Your task to perform on an android device: toggle show notifications on the lock screen Image 0: 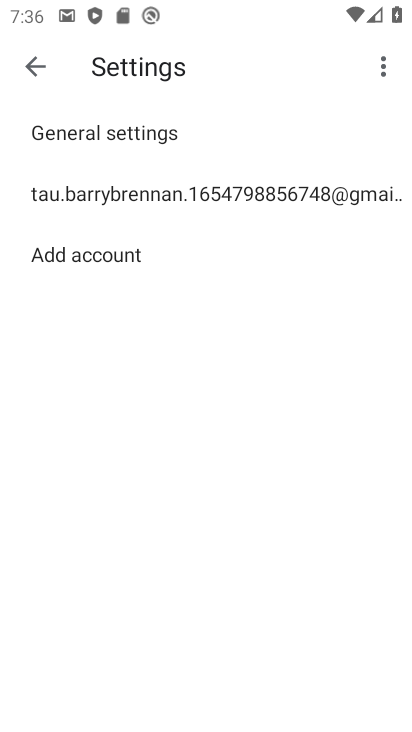
Step 0: press home button
Your task to perform on an android device: toggle show notifications on the lock screen Image 1: 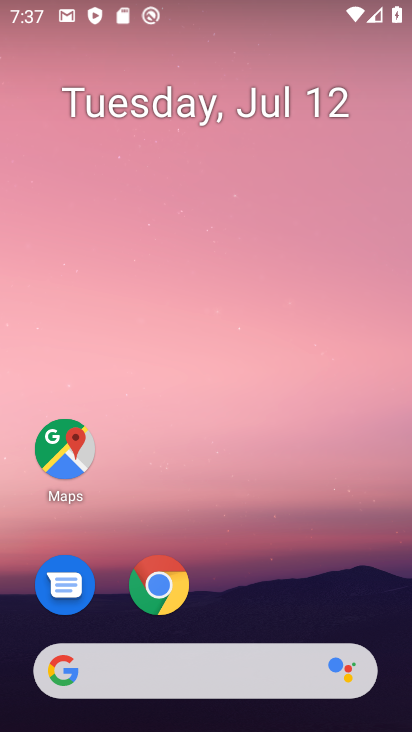
Step 1: drag from (240, 544) to (257, 5)
Your task to perform on an android device: toggle show notifications on the lock screen Image 2: 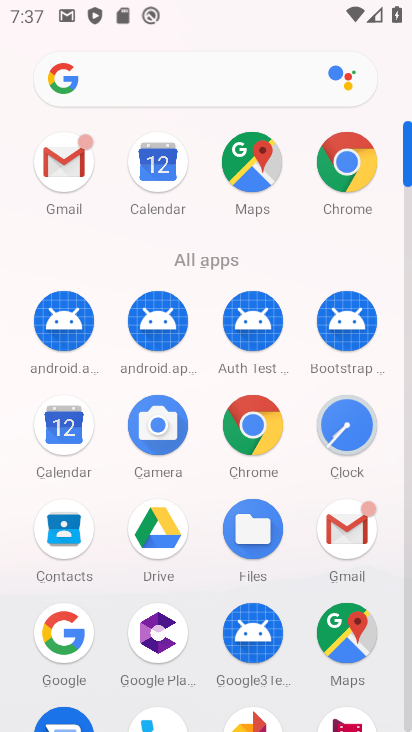
Step 2: drag from (218, 499) to (217, 87)
Your task to perform on an android device: toggle show notifications on the lock screen Image 3: 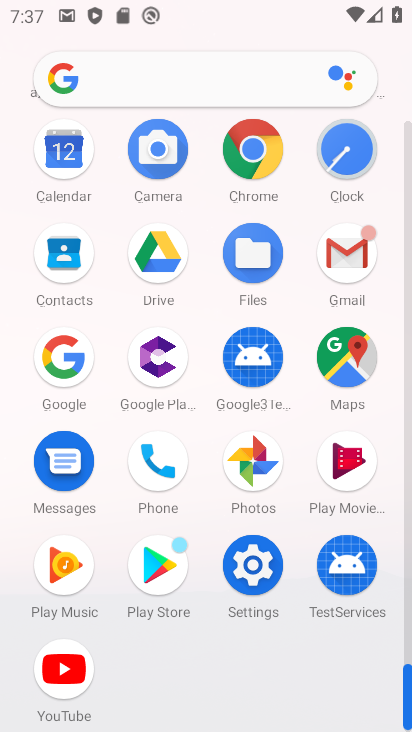
Step 3: click (246, 562)
Your task to perform on an android device: toggle show notifications on the lock screen Image 4: 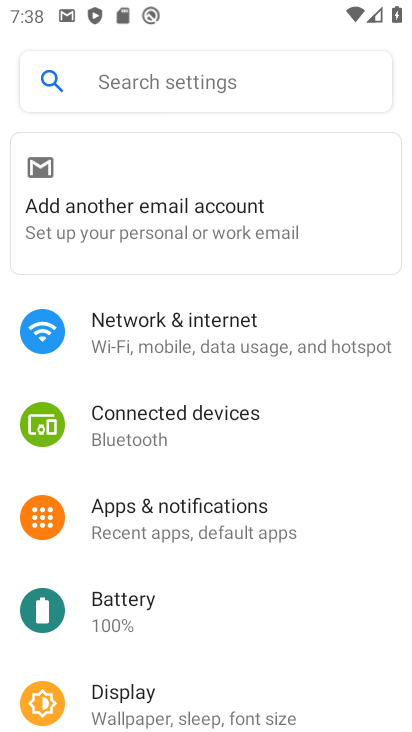
Step 4: drag from (276, 558) to (261, 401)
Your task to perform on an android device: toggle show notifications on the lock screen Image 5: 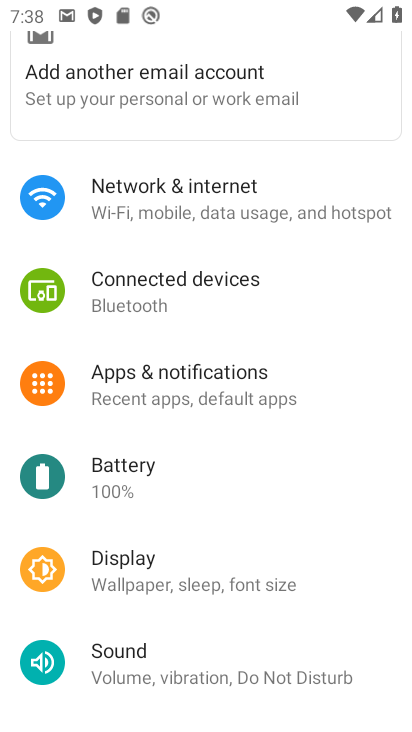
Step 5: click (261, 397)
Your task to perform on an android device: toggle show notifications on the lock screen Image 6: 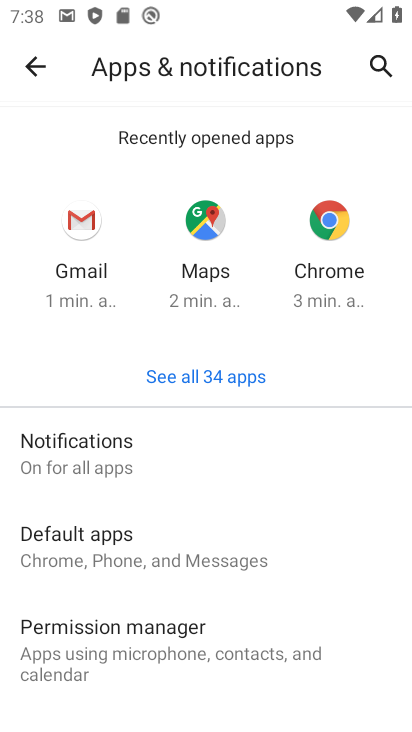
Step 6: click (89, 466)
Your task to perform on an android device: toggle show notifications on the lock screen Image 7: 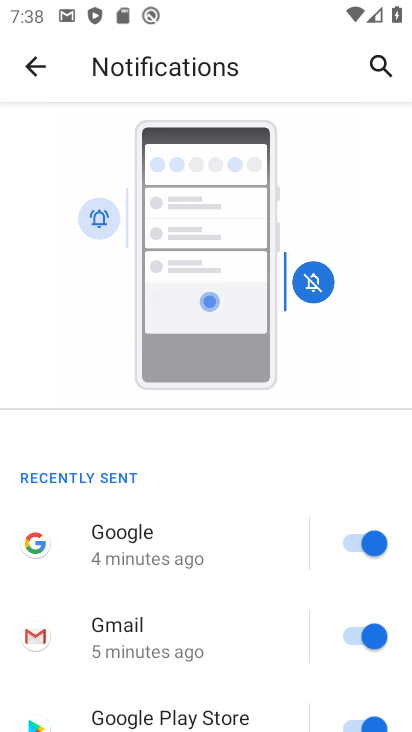
Step 7: drag from (174, 609) to (225, 174)
Your task to perform on an android device: toggle show notifications on the lock screen Image 8: 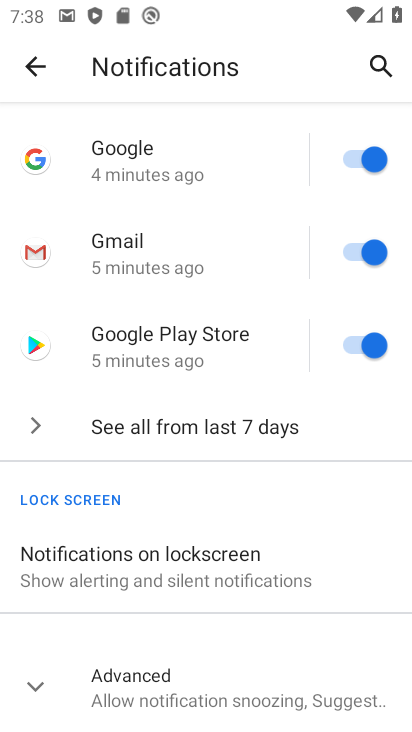
Step 8: click (104, 566)
Your task to perform on an android device: toggle show notifications on the lock screen Image 9: 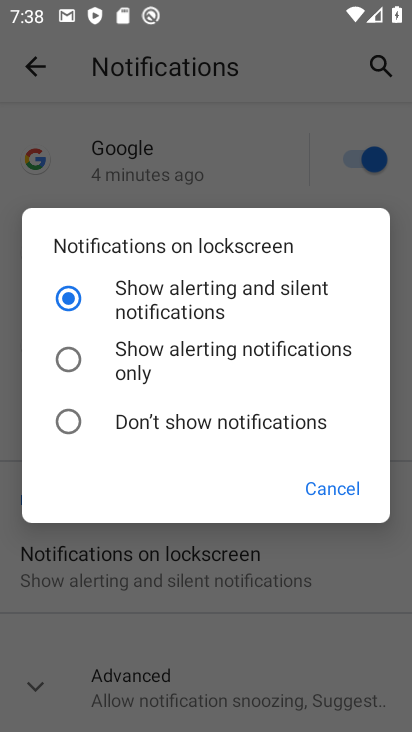
Step 9: click (74, 418)
Your task to perform on an android device: toggle show notifications on the lock screen Image 10: 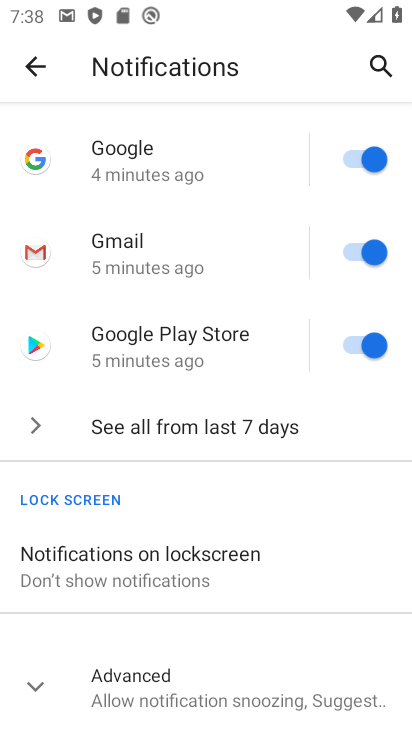
Step 10: task complete